Your task to perform on an android device: Search for "macbook pro 15 inch" on walmart.com, select the first entry, and add it to the cart. Image 0: 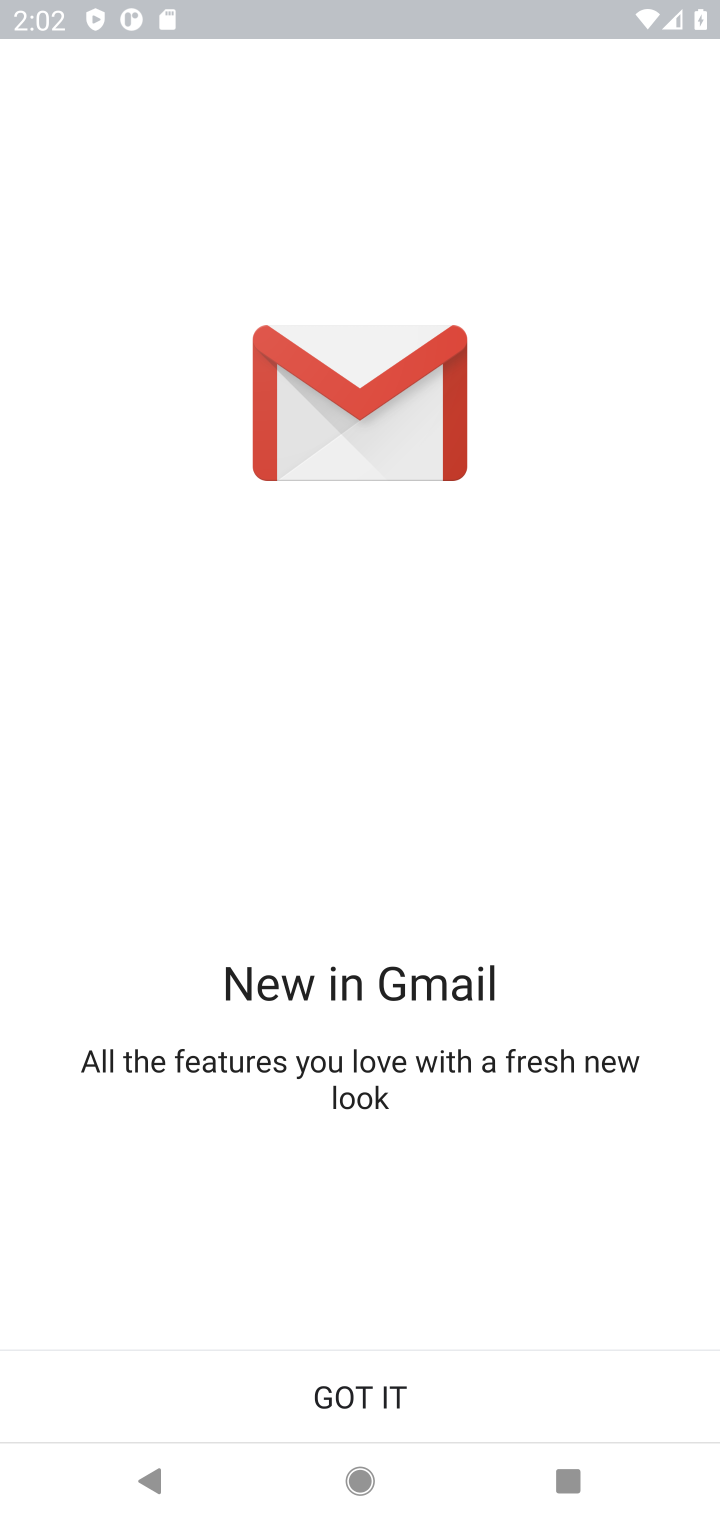
Step 0: press home button
Your task to perform on an android device: Search for "macbook pro 15 inch" on walmart.com, select the first entry, and add it to the cart. Image 1: 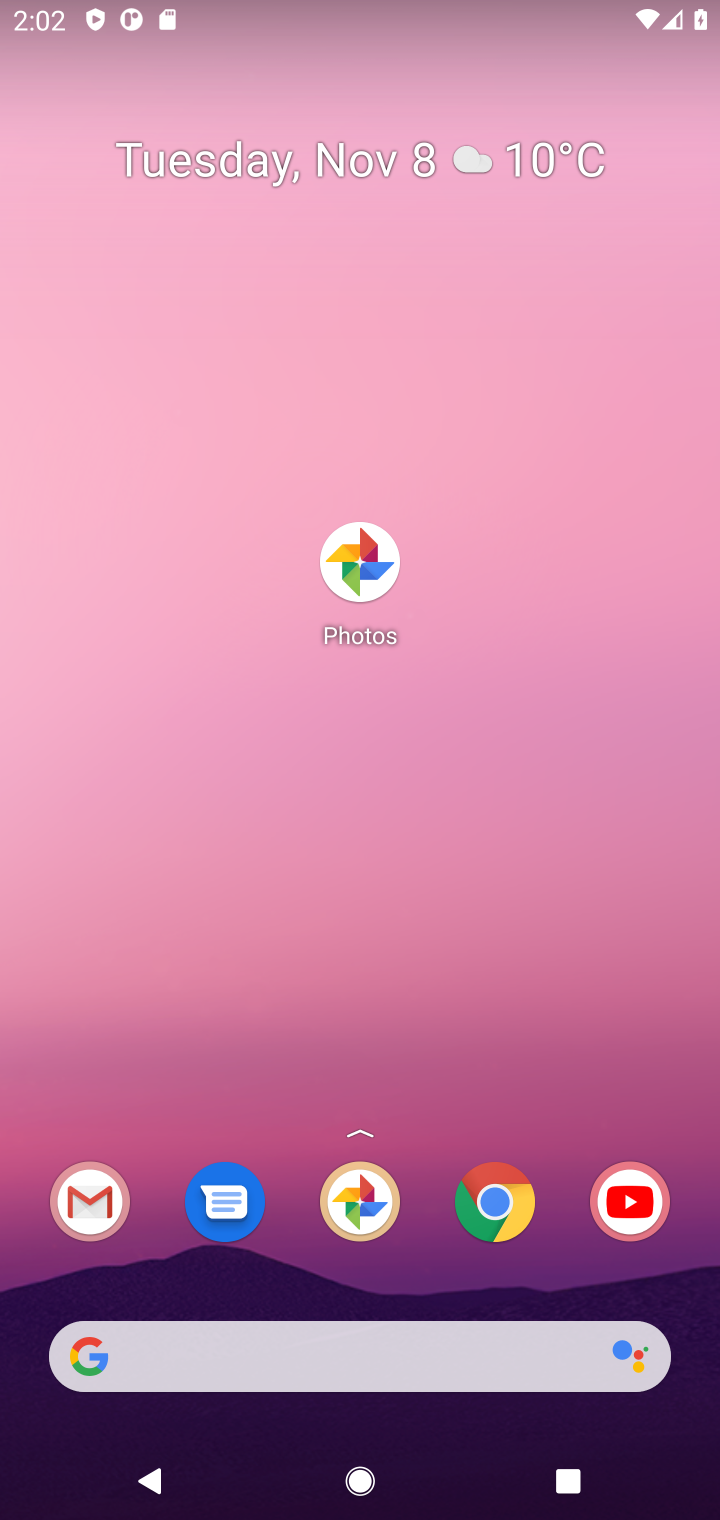
Step 1: drag from (460, 1114) to (363, 404)
Your task to perform on an android device: Search for "macbook pro 15 inch" on walmart.com, select the first entry, and add it to the cart. Image 2: 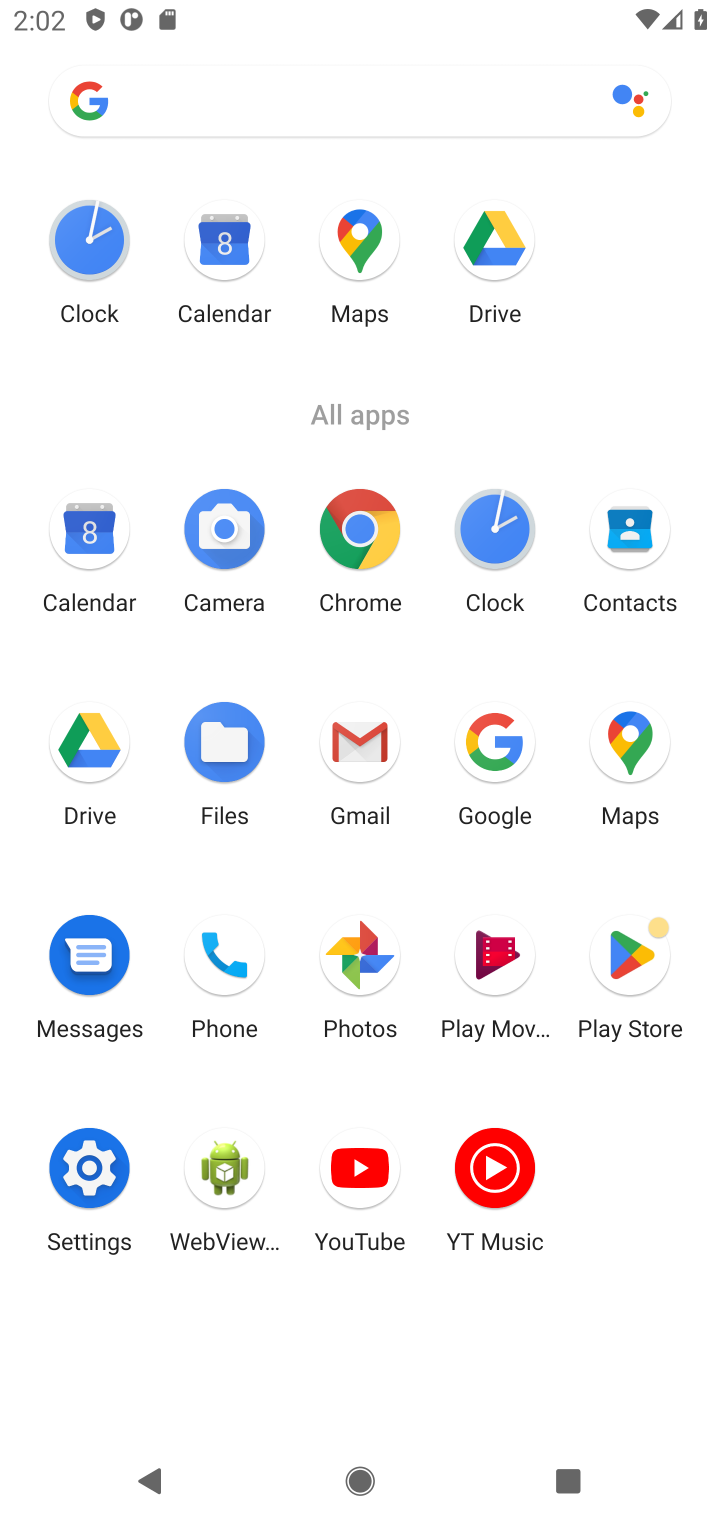
Step 2: click (498, 766)
Your task to perform on an android device: Search for "macbook pro 15 inch" on walmart.com, select the first entry, and add it to the cart. Image 3: 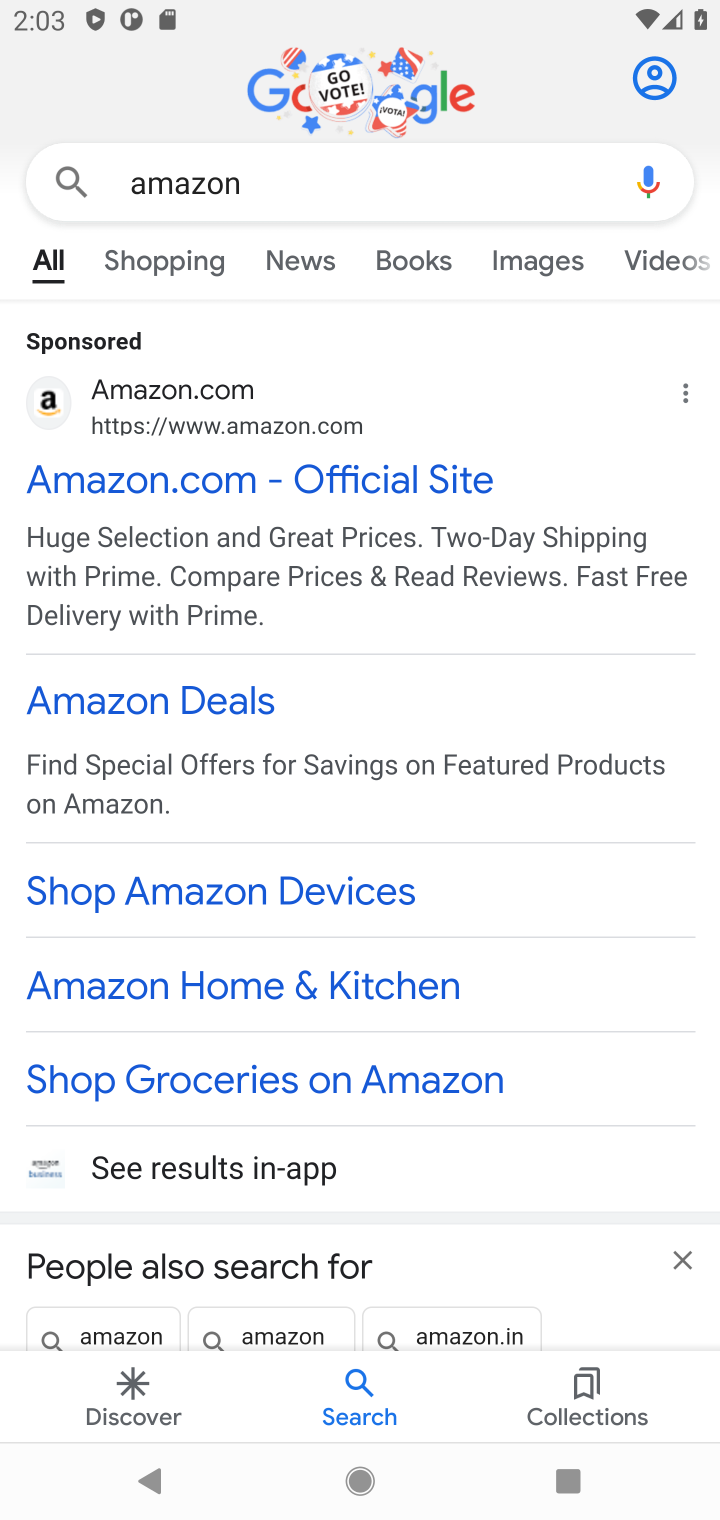
Step 3: click (521, 187)
Your task to perform on an android device: Search for "macbook pro 15 inch" on walmart.com, select the first entry, and add it to the cart. Image 4: 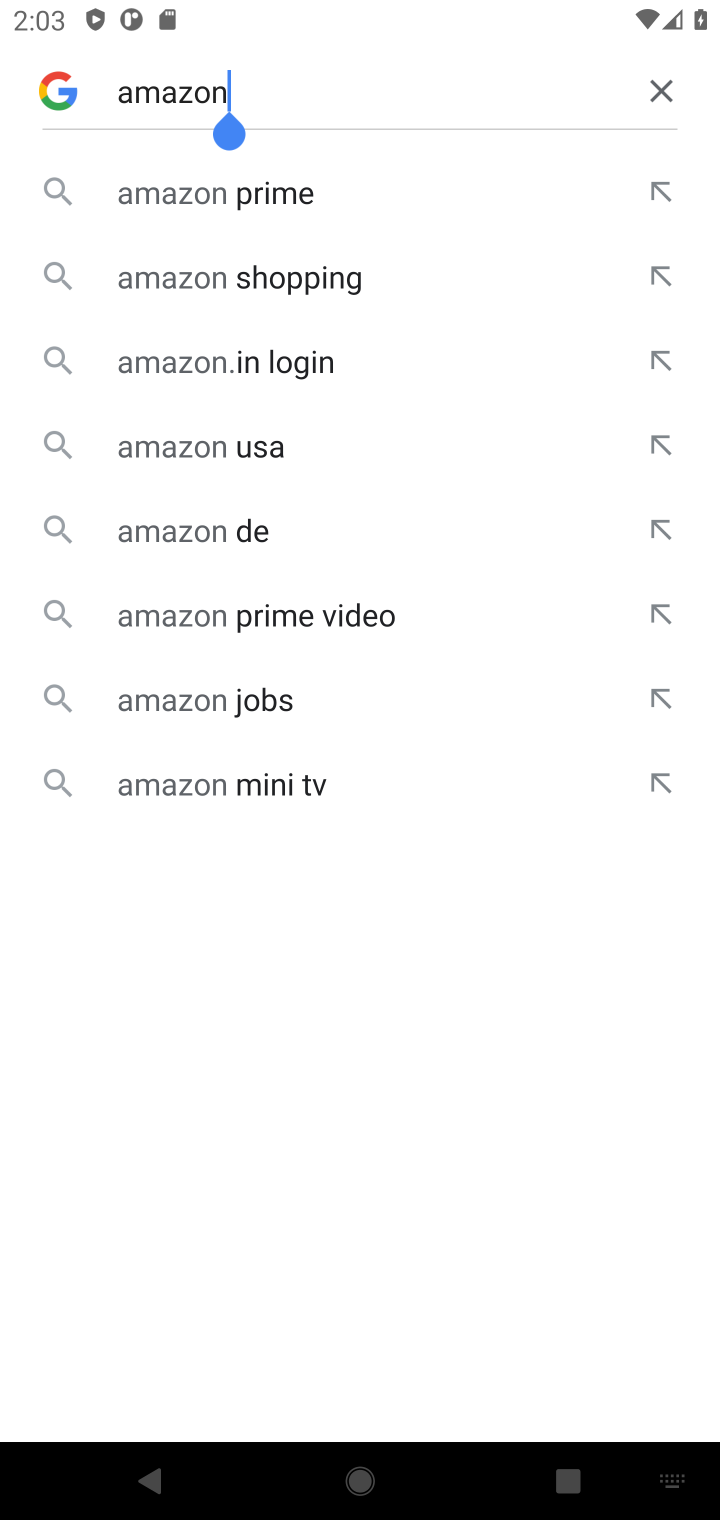
Step 4: click (662, 102)
Your task to perform on an android device: Search for "macbook pro 15 inch" on walmart.com, select the first entry, and add it to the cart. Image 5: 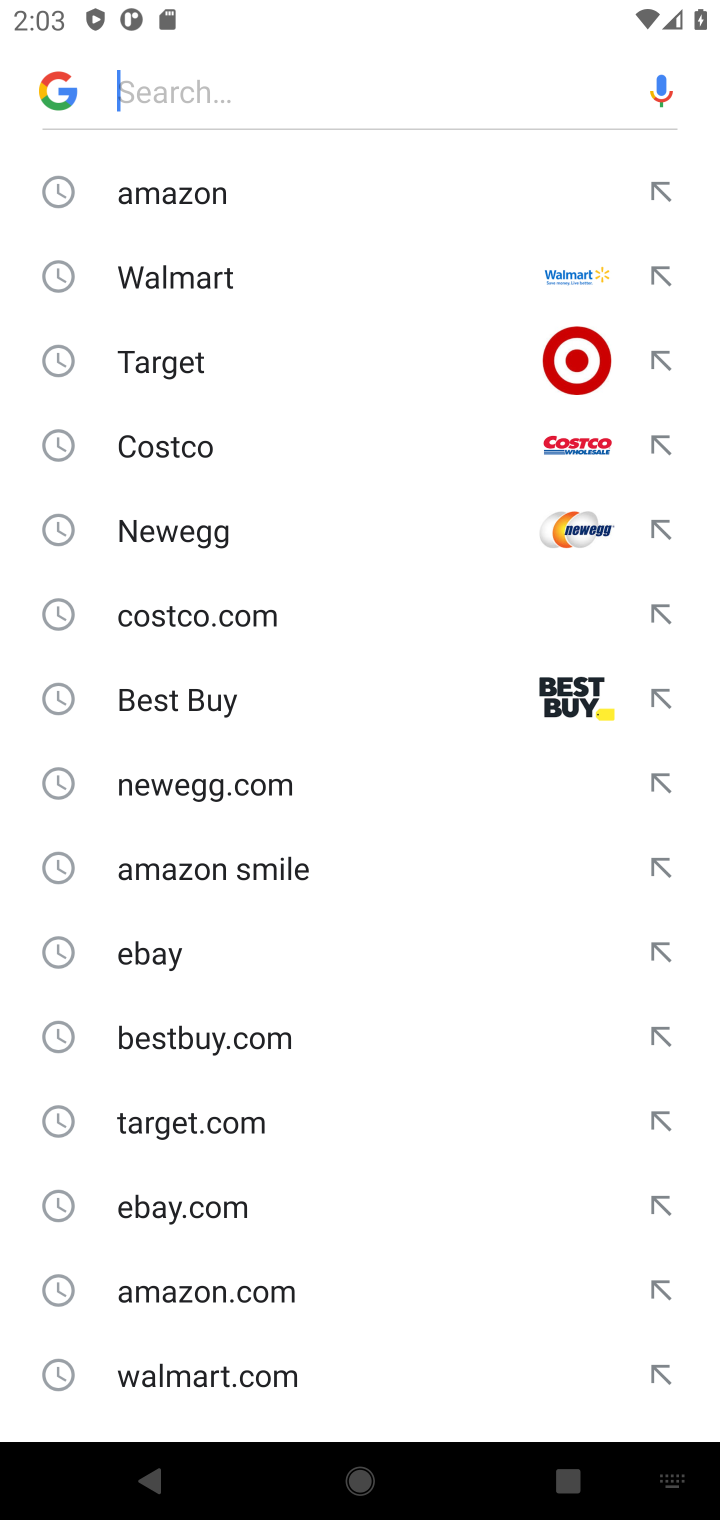
Step 5: type "walmart.com"
Your task to perform on an android device: Search for "macbook pro 15 inch" on walmart.com, select the first entry, and add it to the cart. Image 6: 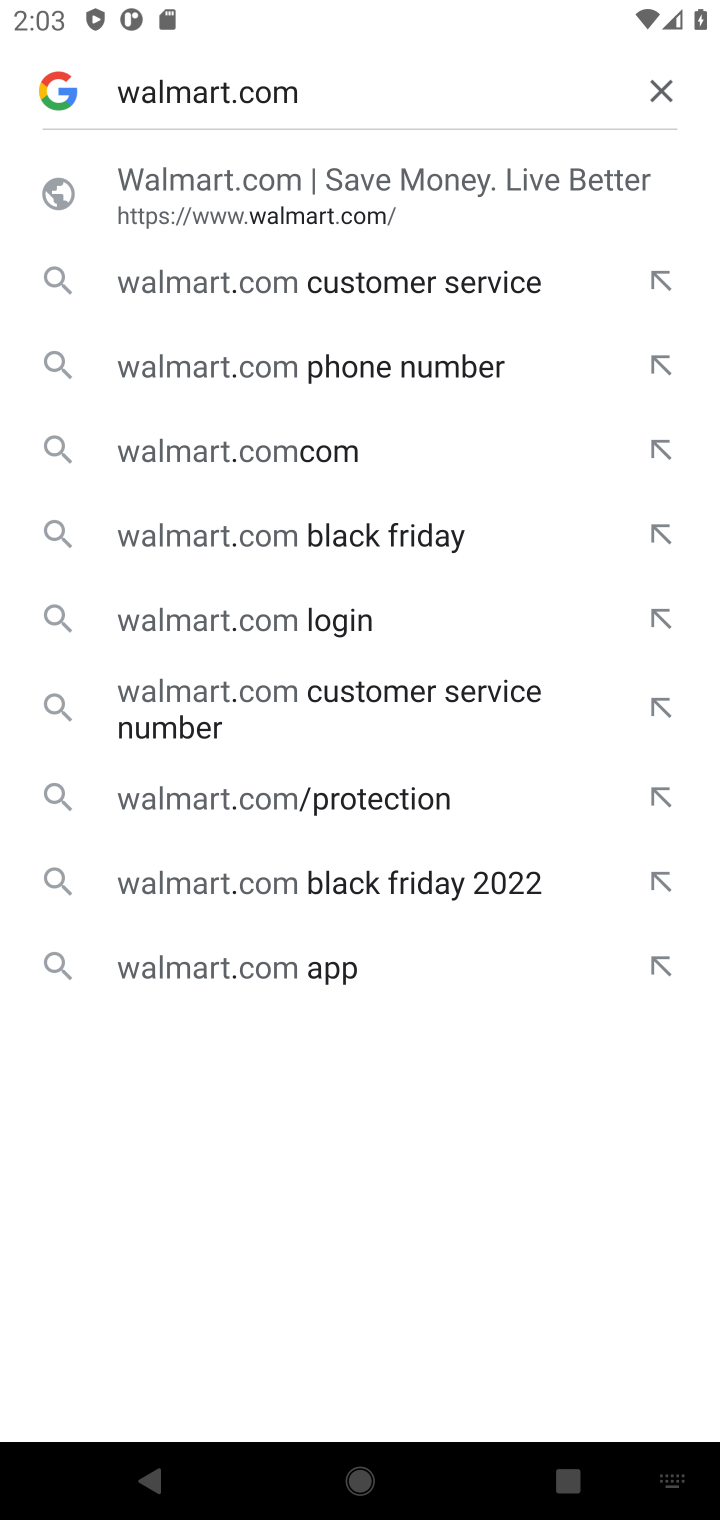
Step 6: click (358, 203)
Your task to perform on an android device: Search for "macbook pro 15 inch" on walmart.com, select the first entry, and add it to the cart. Image 7: 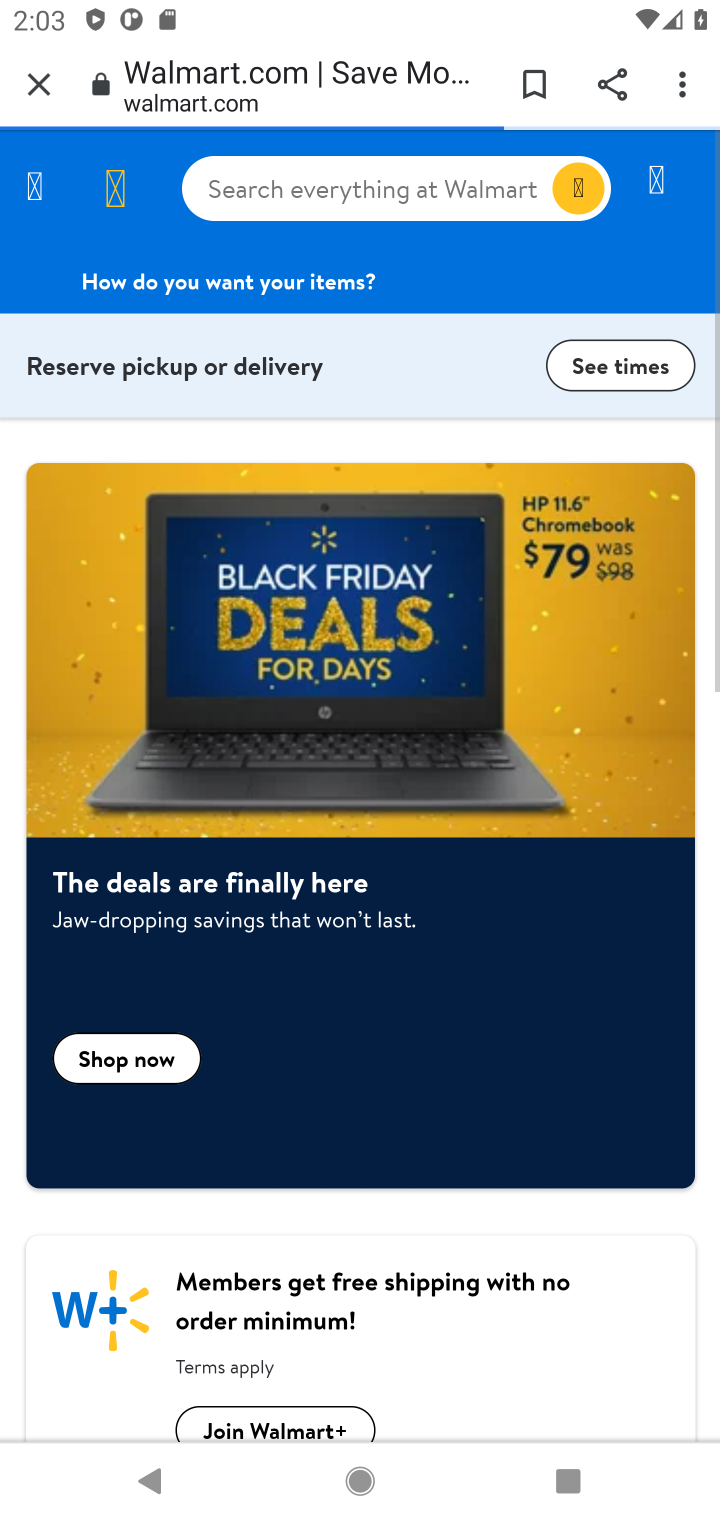
Step 7: click (358, 203)
Your task to perform on an android device: Search for "macbook pro 15 inch" on walmart.com, select the first entry, and add it to the cart. Image 8: 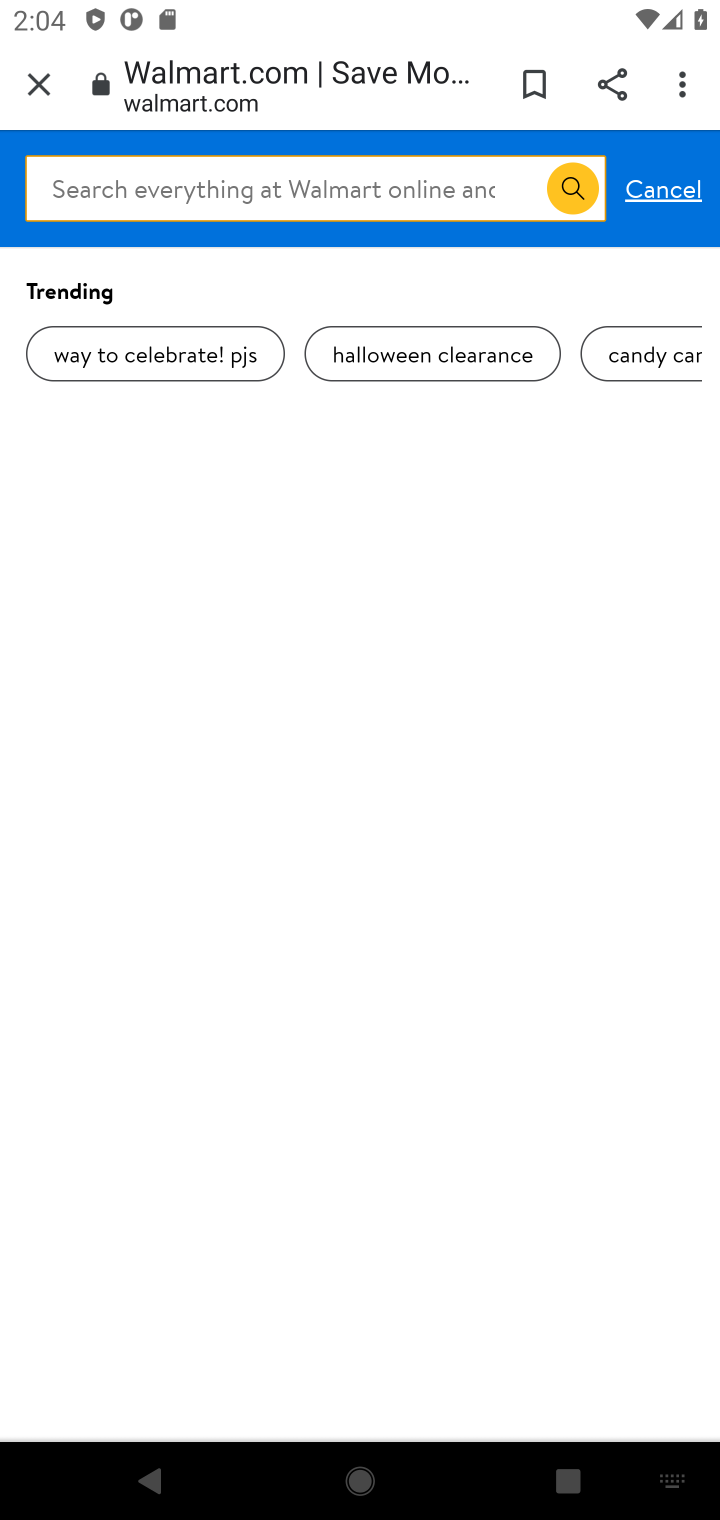
Step 8: type "macbook pro 15 inch"
Your task to perform on an android device: Search for "macbook pro 15 inch" on walmart.com, select the first entry, and add it to the cart. Image 9: 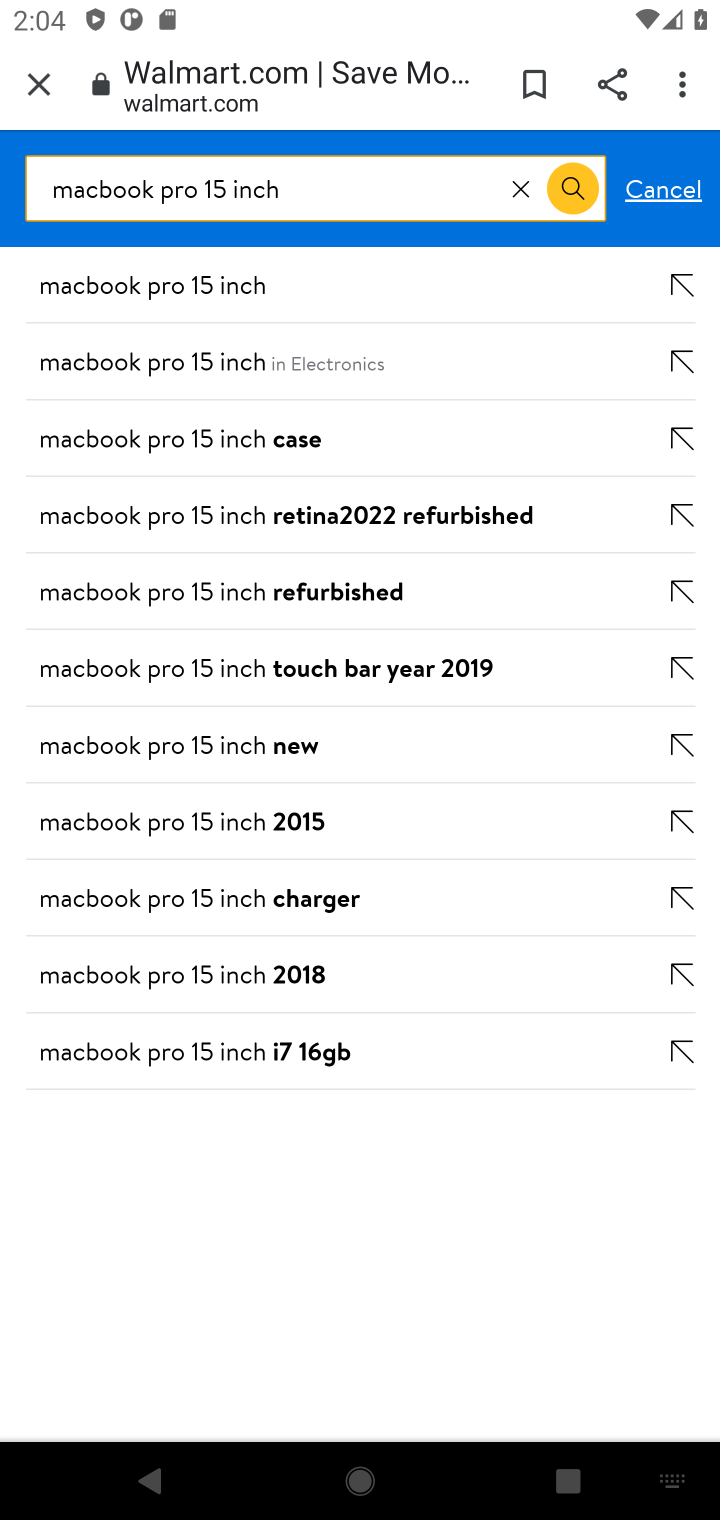
Step 9: click (420, 282)
Your task to perform on an android device: Search for "macbook pro 15 inch" on walmart.com, select the first entry, and add it to the cart. Image 10: 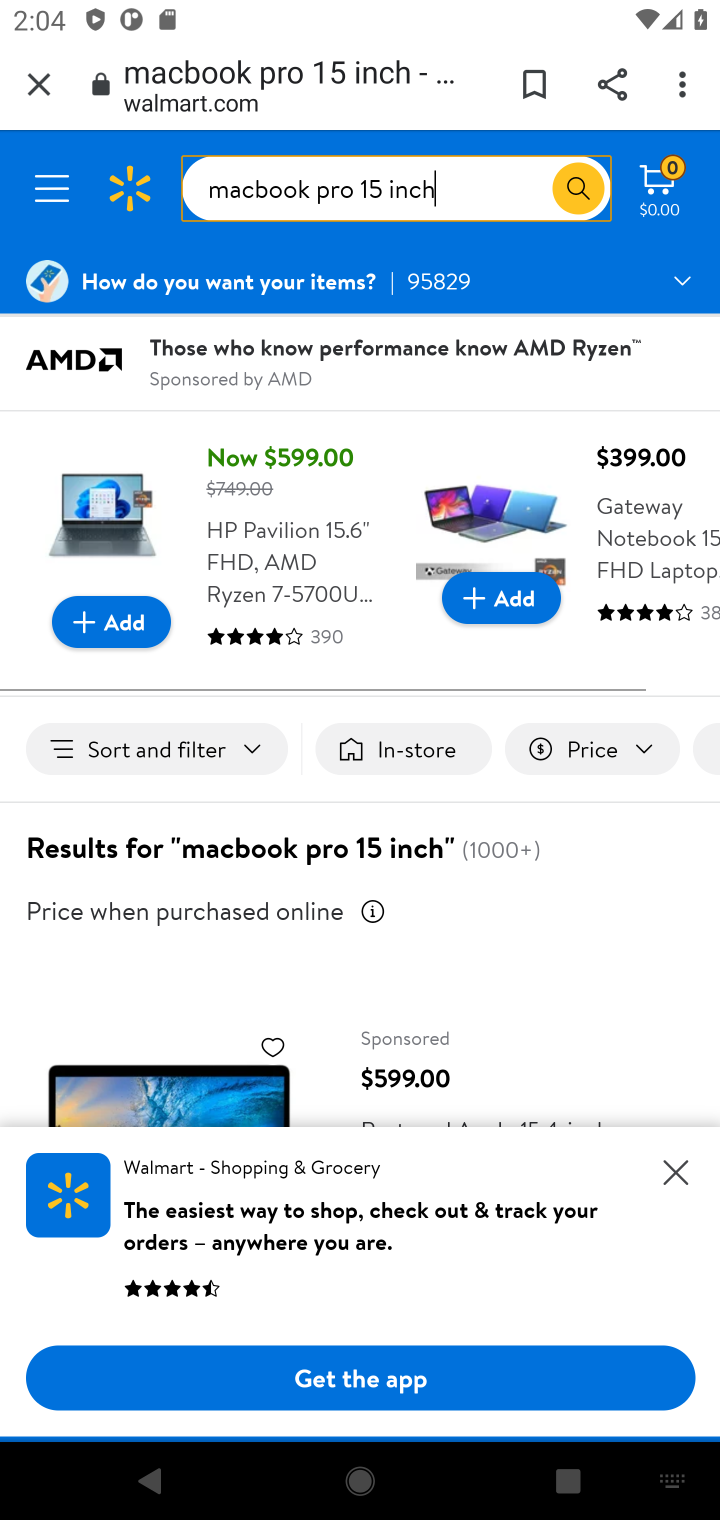
Step 10: click (404, 1071)
Your task to perform on an android device: Search for "macbook pro 15 inch" on walmart.com, select the first entry, and add it to the cart. Image 11: 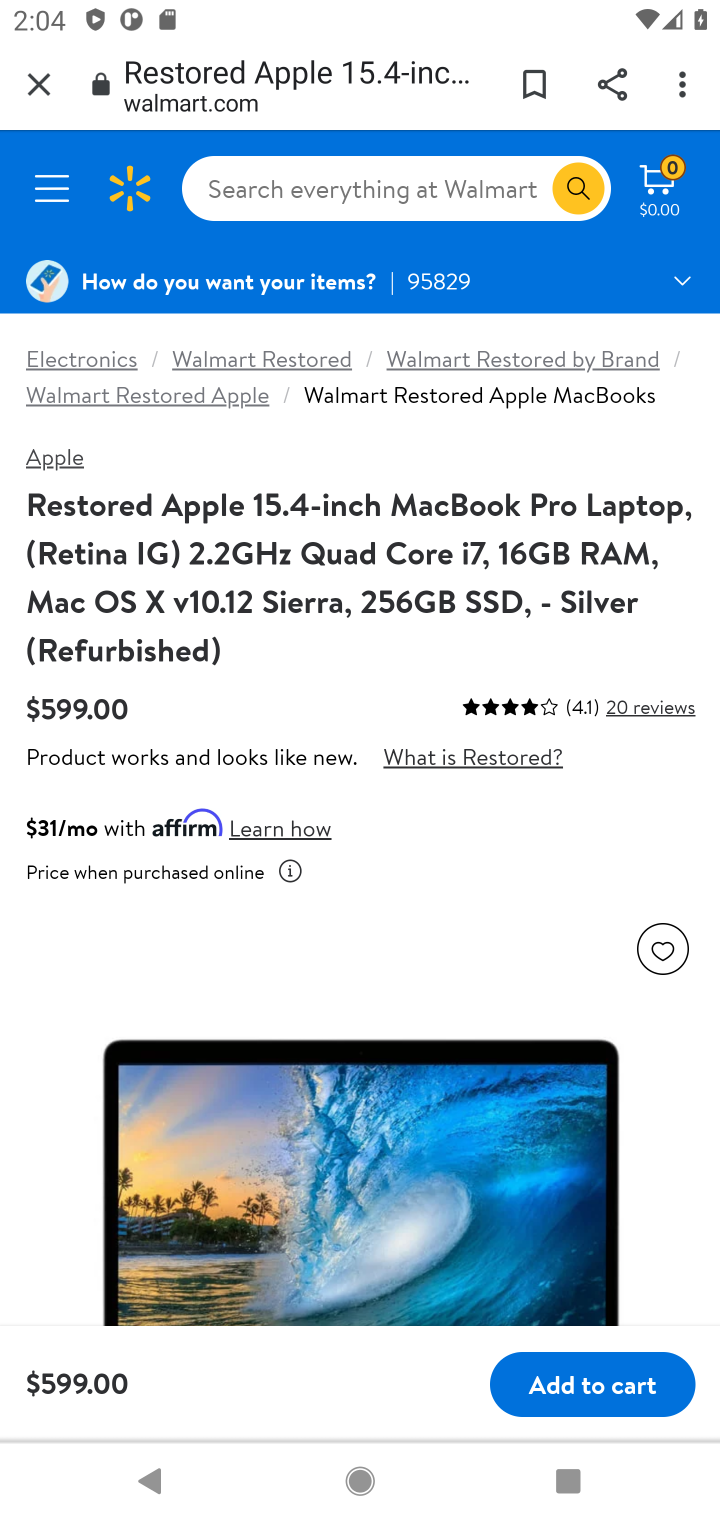
Step 11: click (585, 1369)
Your task to perform on an android device: Search for "macbook pro 15 inch" on walmart.com, select the first entry, and add it to the cart. Image 12: 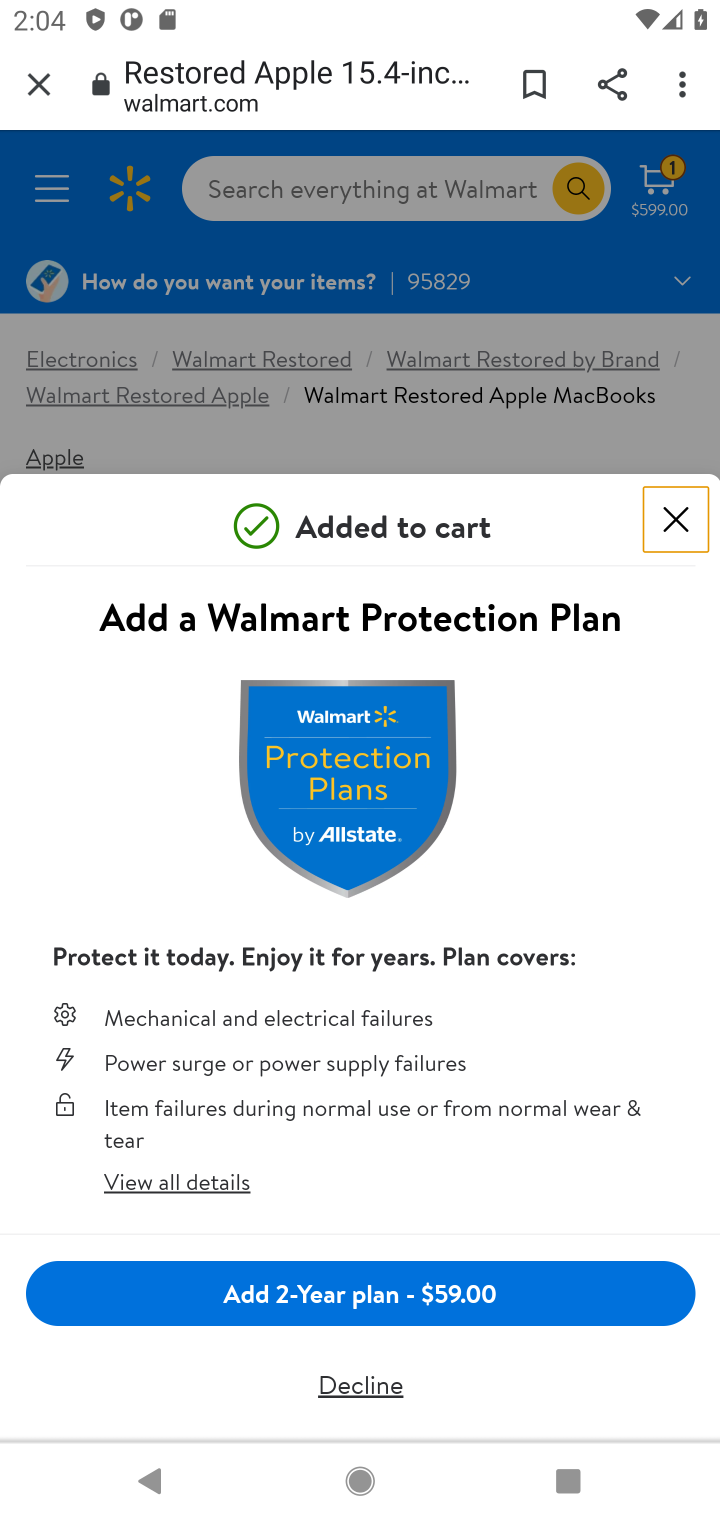
Step 12: task complete